Your task to perform on an android device: Toggle the flashlight Image 0: 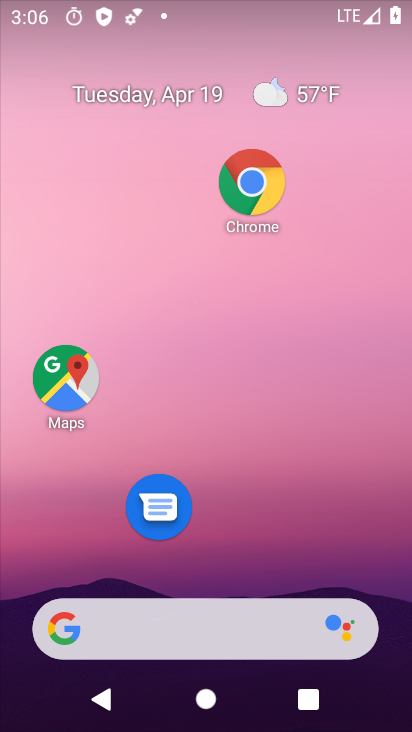
Step 0: drag from (245, 527) to (288, 185)
Your task to perform on an android device: Toggle the flashlight Image 1: 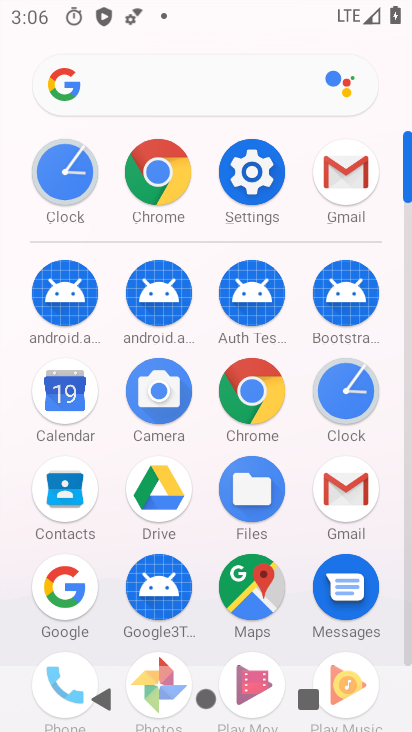
Step 1: task complete